Your task to perform on an android device: Open settings on Google Maps Image 0: 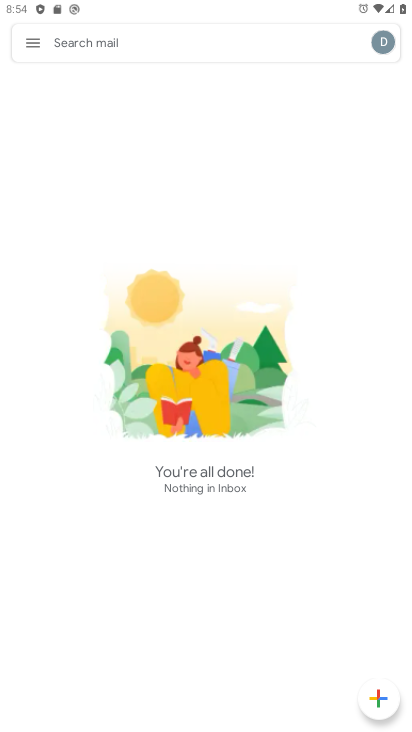
Step 0: press home button
Your task to perform on an android device: Open settings on Google Maps Image 1: 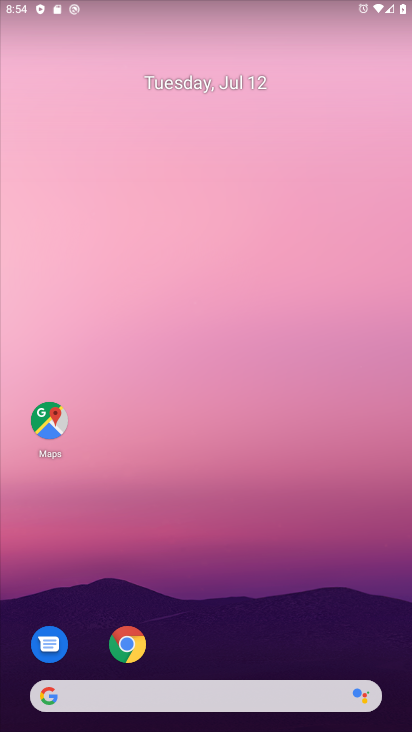
Step 1: click (37, 428)
Your task to perform on an android device: Open settings on Google Maps Image 2: 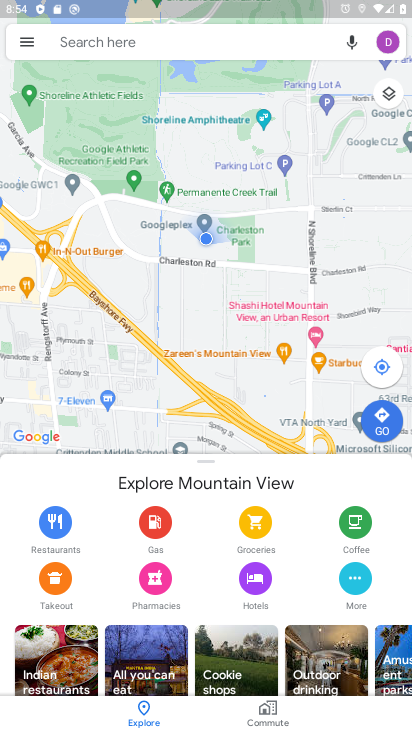
Step 2: click (25, 48)
Your task to perform on an android device: Open settings on Google Maps Image 3: 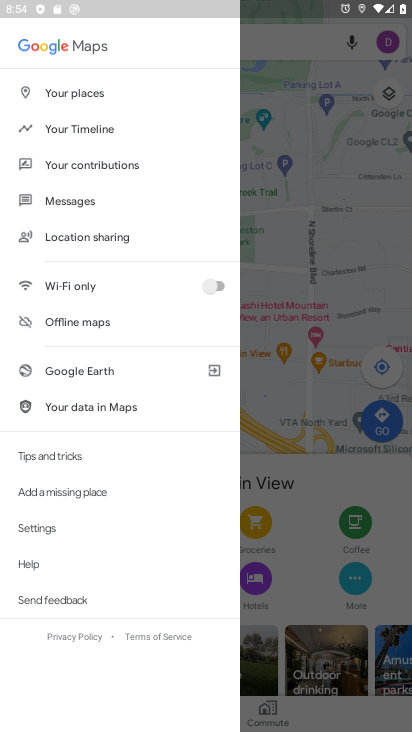
Step 3: click (60, 523)
Your task to perform on an android device: Open settings on Google Maps Image 4: 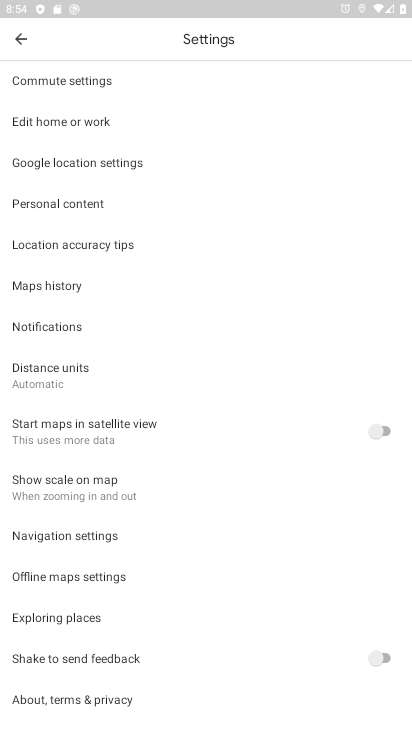
Step 4: task complete